Your task to perform on an android device: Go to battery settings Image 0: 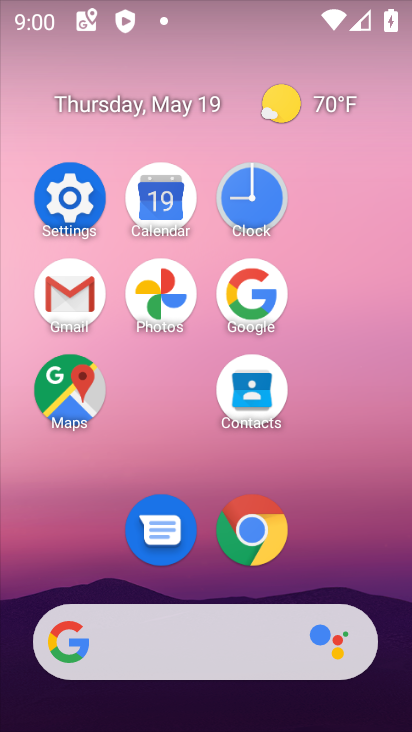
Step 0: click (67, 205)
Your task to perform on an android device: Go to battery settings Image 1: 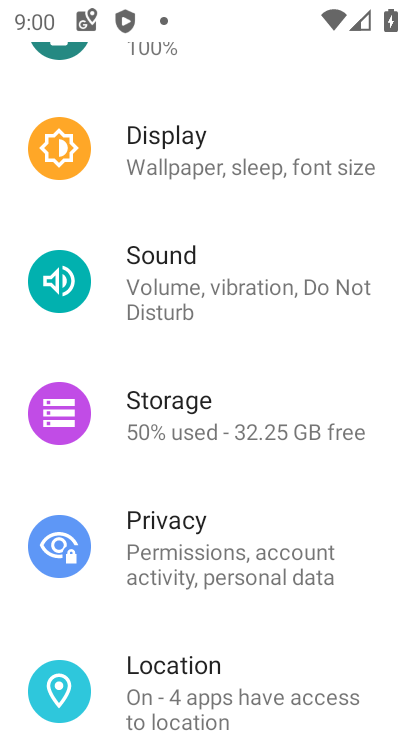
Step 1: drag from (274, 617) to (287, 211)
Your task to perform on an android device: Go to battery settings Image 2: 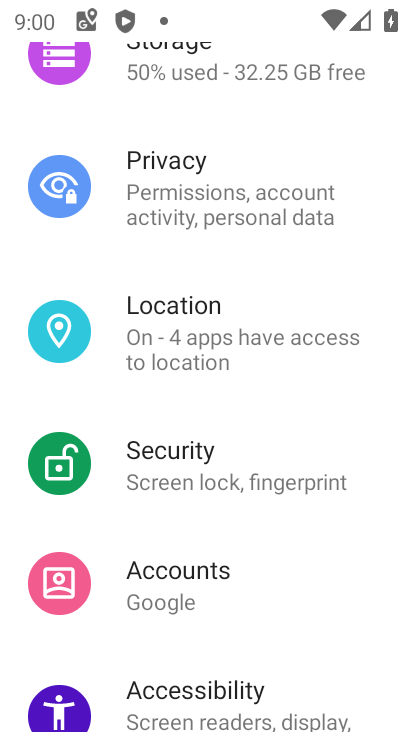
Step 2: drag from (330, 178) to (309, 620)
Your task to perform on an android device: Go to battery settings Image 3: 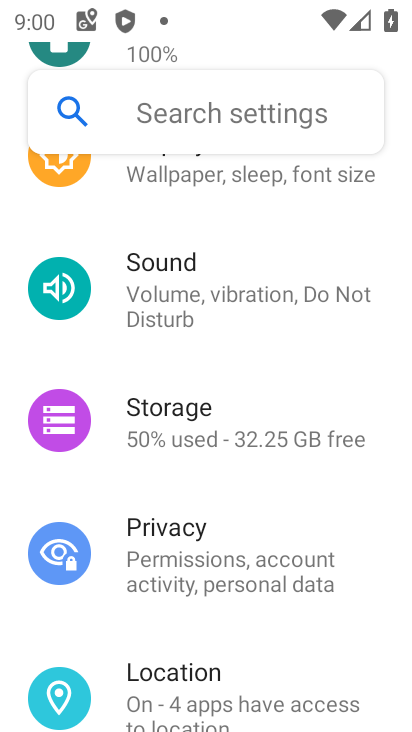
Step 3: drag from (323, 229) to (337, 660)
Your task to perform on an android device: Go to battery settings Image 4: 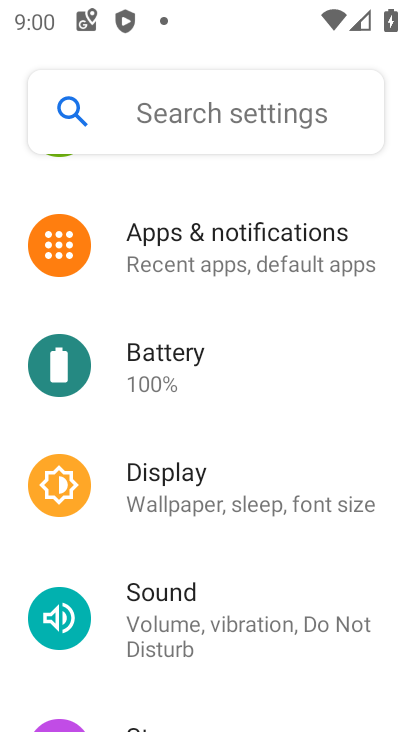
Step 4: click (251, 384)
Your task to perform on an android device: Go to battery settings Image 5: 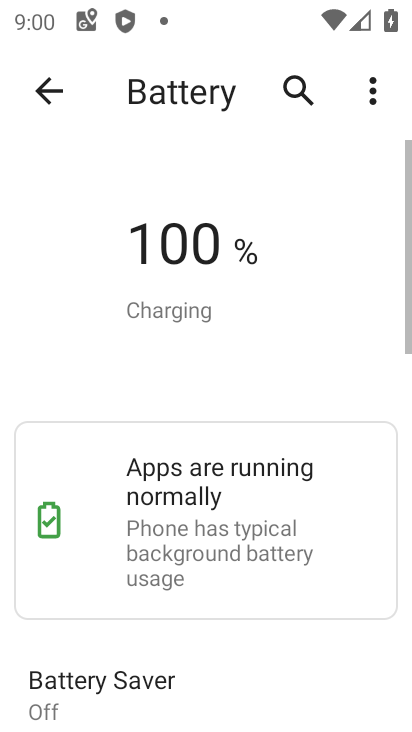
Step 5: task complete